Your task to perform on an android device: Turn off the flashlight Image 0: 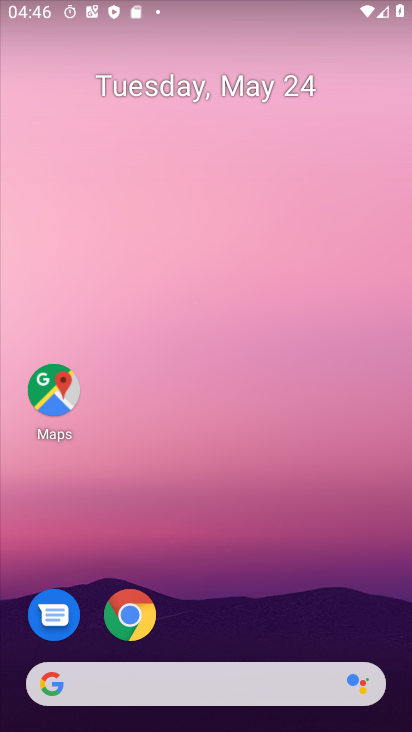
Step 0: drag from (210, 508) to (269, 26)
Your task to perform on an android device: Turn off the flashlight Image 1: 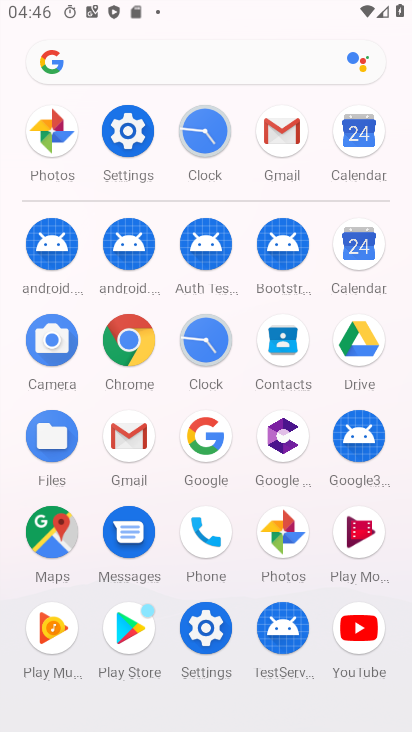
Step 1: click (131, 129)
Your task to perform on an android device: Turn off the flashlight Image 2: 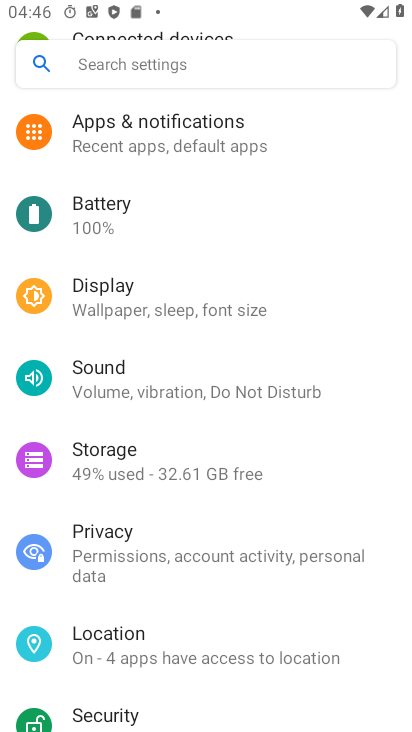
Step 2: click (156, 74)
Your task to perform on an android device: Turn off the flashlight Image 3: 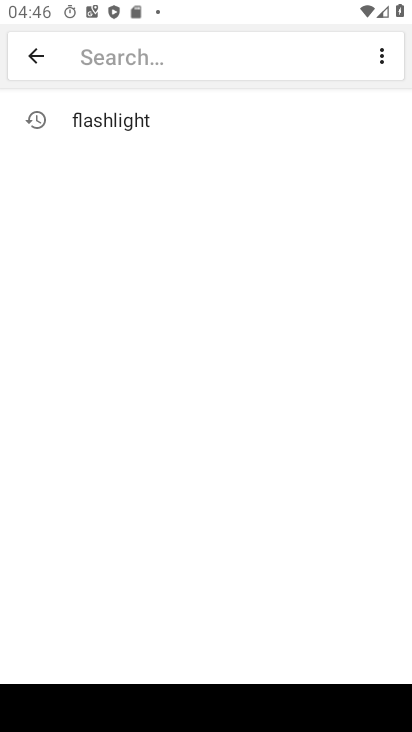
Step 3: type "flashlight"
Your task to perform on an android device: Turn off the flashlight Image 4: 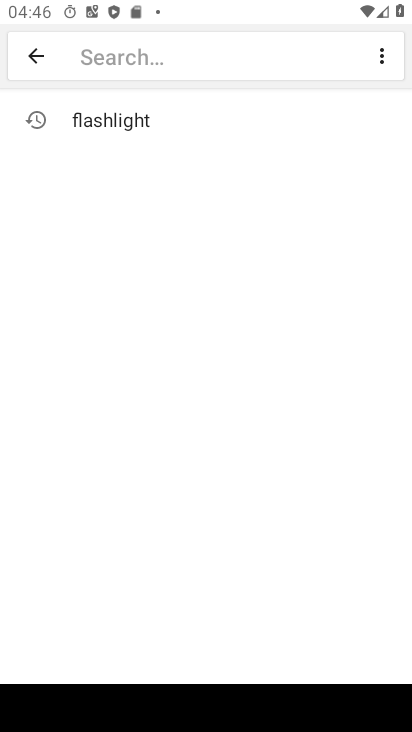
Step 4: click (107, 105)
Your task to perform on an android device: Turn off the flashlight Image 5: 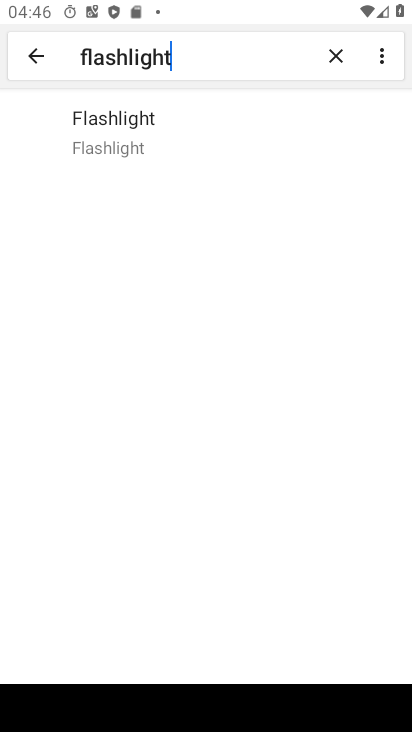
Step 5: click (152, 115)
Your task to perform on an android device: Turn off the flashlight Image 6: 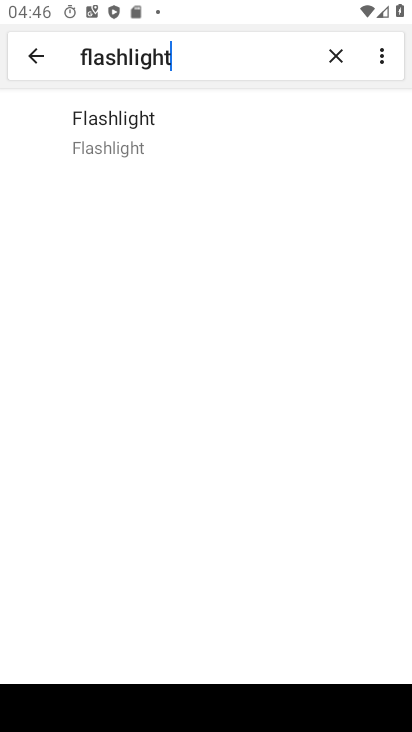
Step 6: task complete